Your task to perform on an android device: toggle location history Image 0: 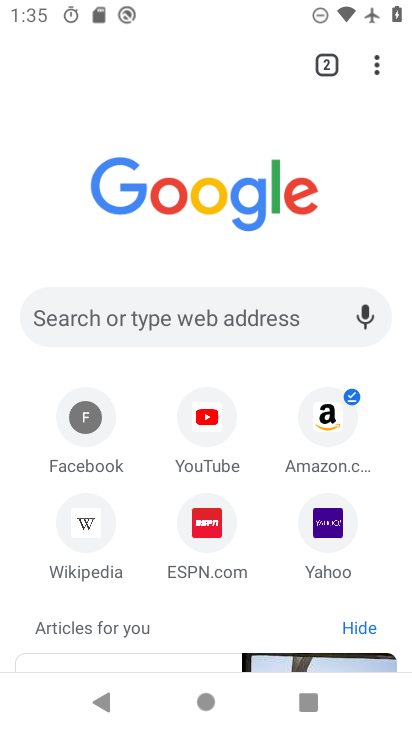
Step 0: press home button
Your task to perform on an android device: toggle location history Image 1: 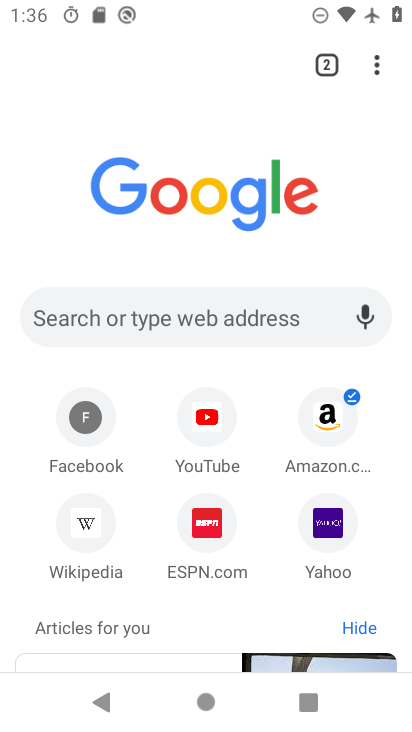
Step 1: press home button
Your task to perform on an android device: toggle location history Image 2: 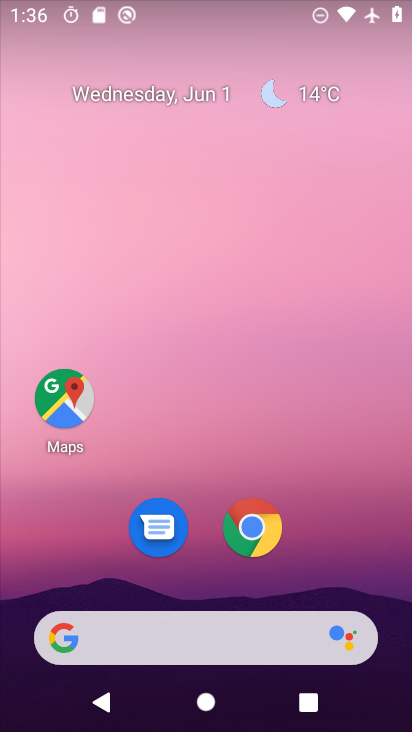
Step 2: drag from (162, 628) to (244, 185)
Your task to perform on an android device: toggle location history Image 3: 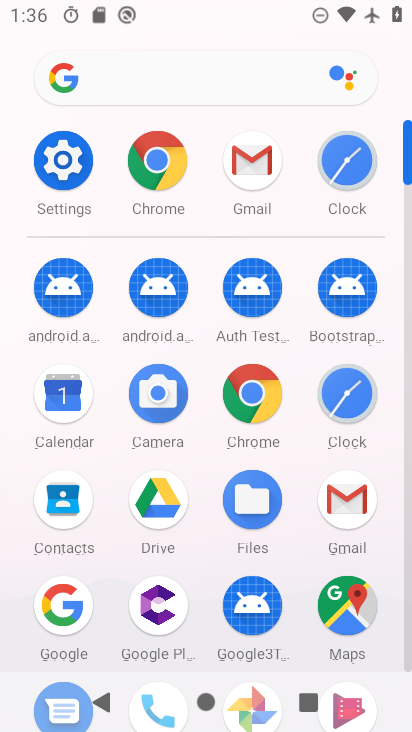
Step 3: click (66, 145)
Your task to perform on an android device: toggle location history Image 4: 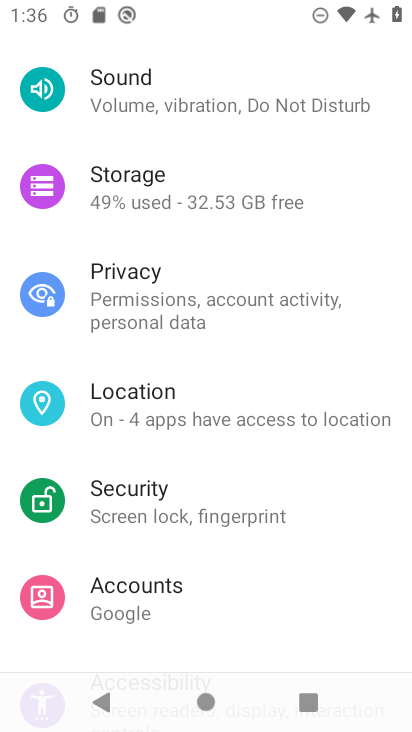
Step 4: click (200, 413)
Your task to perform on an android device: toggle location history Image 5: 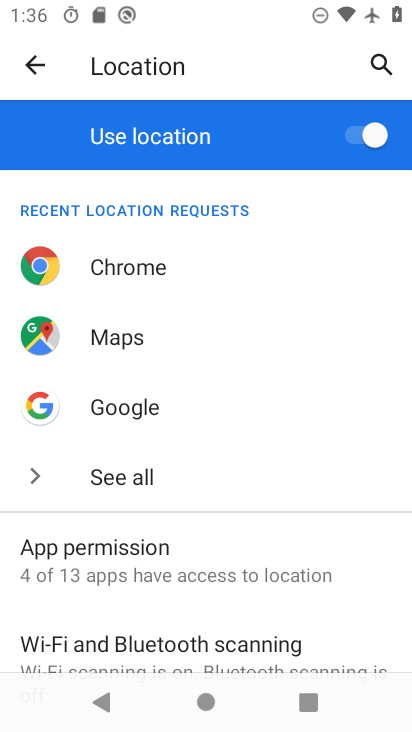
Step 5: drag from (161, 606) to (254, 226)
Your task to perform on an android device: toggle location history Image 6: 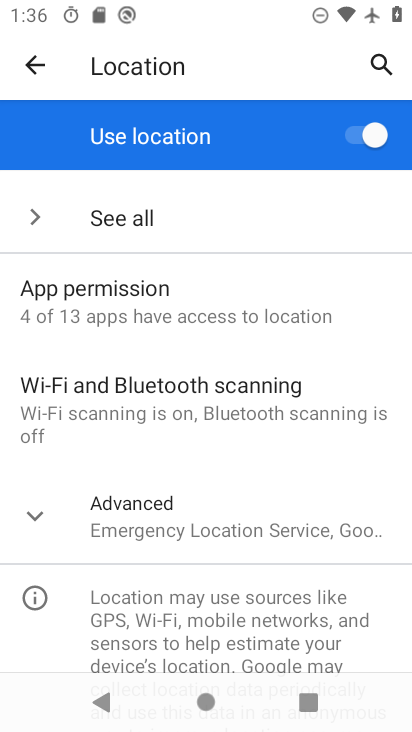
Step 6: click (194, 532)
Your task to perform on an android device: toggle location history Image 7: 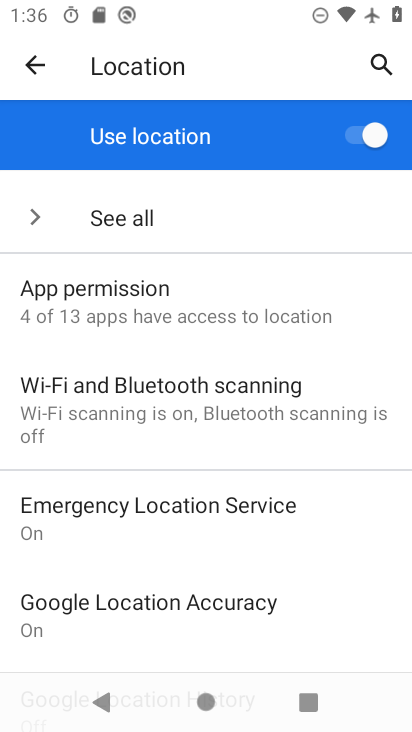
Step 7: drag from (169, 546) to (212, 251)
Your task to perform on an android device: toggle location history Image 8: 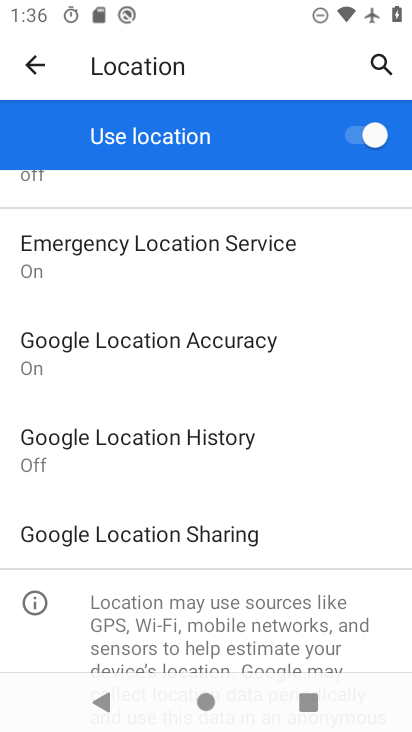
Step 8: click (170, 437)
Your task to perform on an android device: toggle location history Image 9: 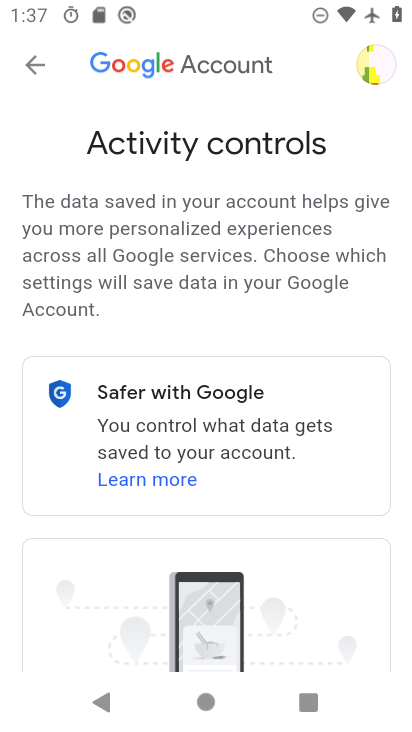
Step 9: drag from (163, 485) to (48, 115)
Your task to perform on an android device: toggle location history Image 10: 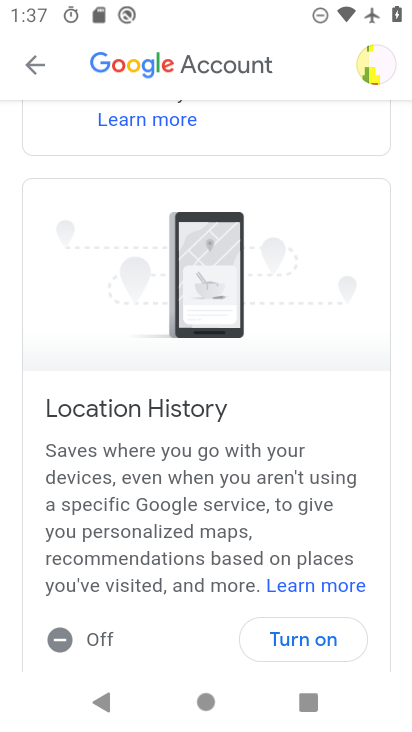
Step 10: drag from (263, 507) to (202, 290)
Your task to perform on an android device: toggle location history Image 11: 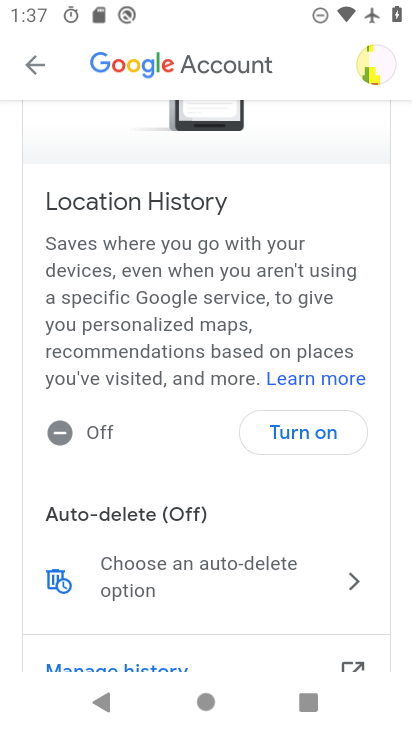
Step 11: click (310, 440)
Your task to perform on an android device: toggle location history Image 12: 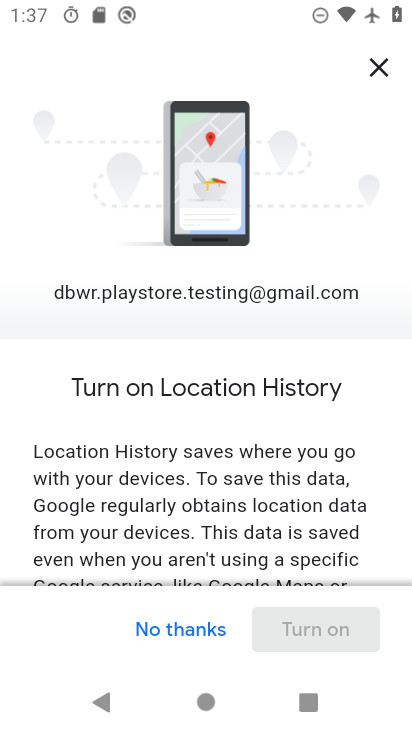
Step 12: drag from (306, 486) to (317, 9)
Your task to perform on an android device: toggle location history Image 13: 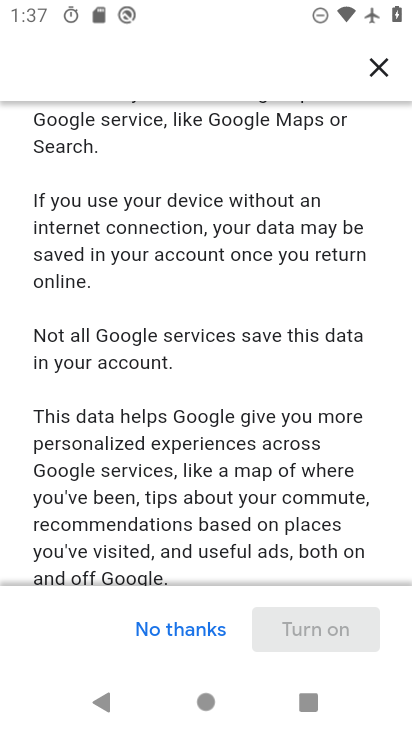
Step 13: drag from (279, 401) to (365, 33)
Your task to perform on an android device: toggle location history Image 14: 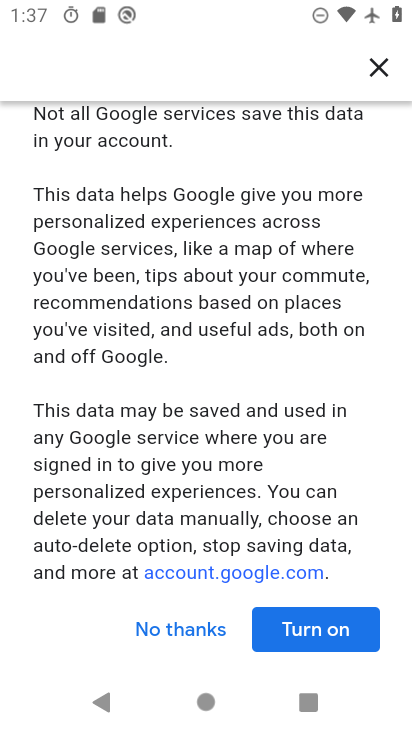
Step 14: click (310, 637)
Your task to perform on an android device: toggle location history Image 15: 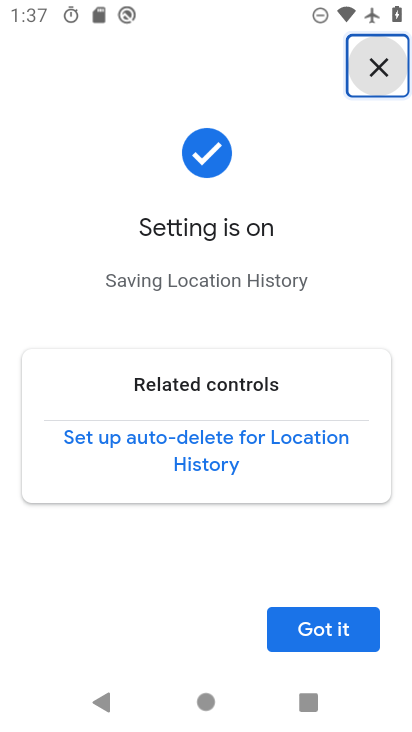
Step 15: click (326, 640)
Your task to perform on an android device: toggle location history Image 16: 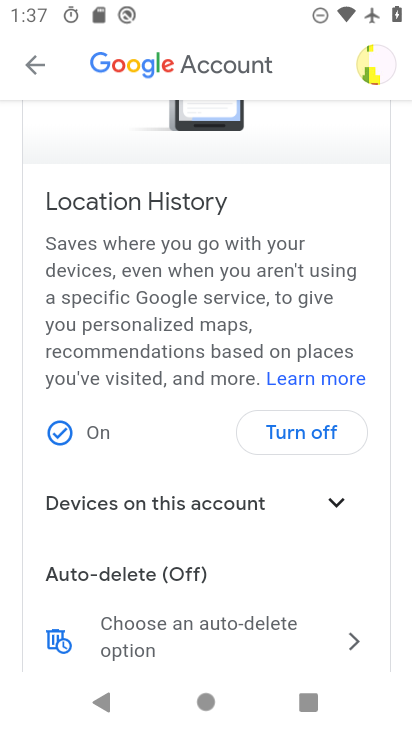
Step 16: task complete